Your task to perform on an android device: View the shopping cart on walmart.com. Add "alienware aurora" to the cart on walmart.com Image 0: 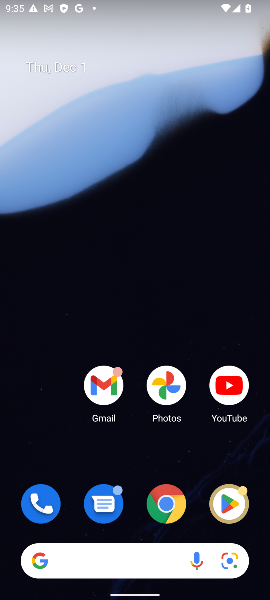
Step 0: click (168, 500)
Your task to perform on an android device: View the shopping cart on walmart.com. Add "alienware aurora" to the cart on walmart.com Image 1: 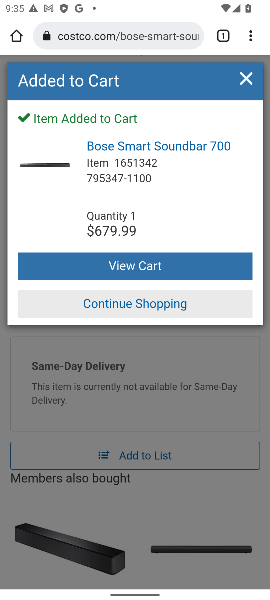
Step 1: click (244, 79)
Your task to perform on an android device: View the shopping cart on walmart.com. Add "alienware aurora" to the cart on walmart.com Image 2: 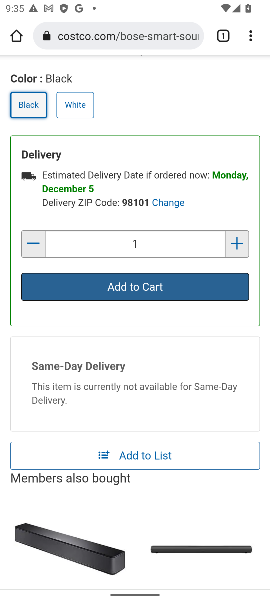
Step 2: click (128, 31)
Your task to perform on an android device: View the shopping cart on walmart.com. Add "alienware aurora" to the cart on walmart.com Image 3: 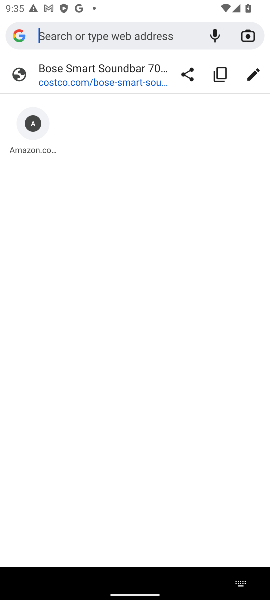
Step 3: type "walmart"
Your task to perform on an android device: View the shopping cart on walmart.com. Add "alienware aurora" to the cart on walmart.com Image 4: 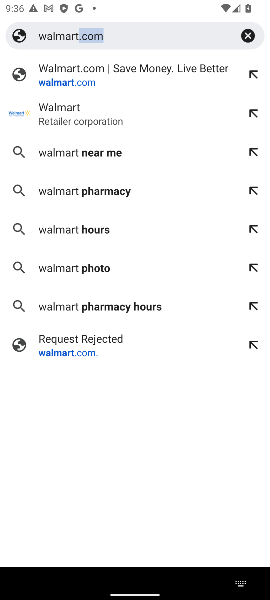
Step 4: click (149, 73)
Your task to perform on an android device: View the shopping cart on walmart.com. Add "alienware aurora" to the cart on walmart.com Image 5: 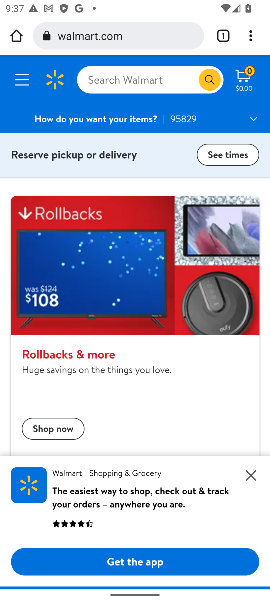
Step 5: click (242, 75)
Your task to perform on an android device: View the shopping cart on walmart.com. Add "alienware aurora" to the cart on walmart.com Image 6: 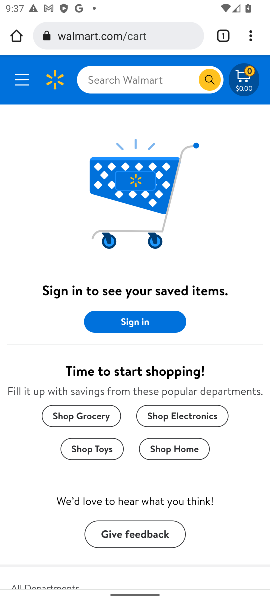
Step 6: click (145, 72)
Your task to perform on an android device: View the shopping cart on walmart.com. Add "alienware aurora" to the cart on walmart.com Image 7: 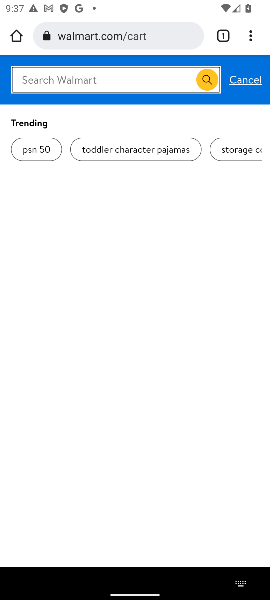
Step 7: type "alienware aurora"
Your task to perform on an android device: View the shopping cart on walmart.com. Add "alienware aurora" to the cart on walmart.com Image 8: 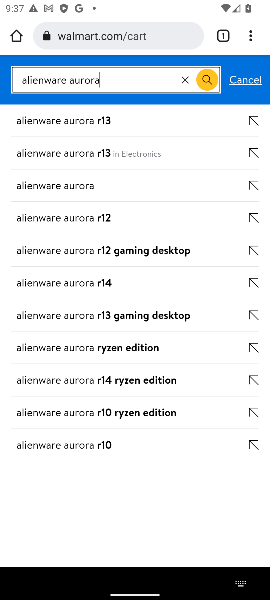
Step 8: click (92, 119)
Your task to perform on an android device: View the shopping cart on walmart.com. Add "alienware aurora" to the cart on walmart.com Image 9: 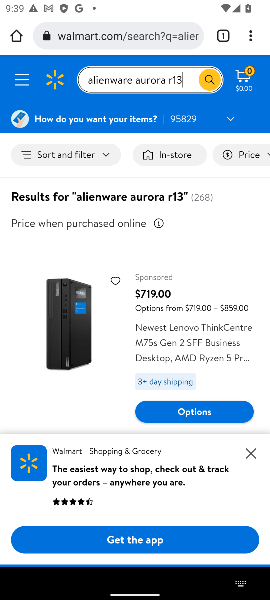
Step 9: click (74, 322)
Your task to perform on an android device: View the shopping cart on walmart.com. Add "alienware aurora" to the cart on walmart.com Image 10: 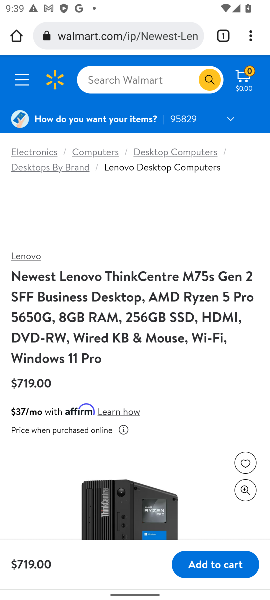
Step 10: click (195, 566)
Your task to perform on an android device: View the shopping cart on walmart.com. Add "alienware aurora" to the cart on walmart.com Image 11: 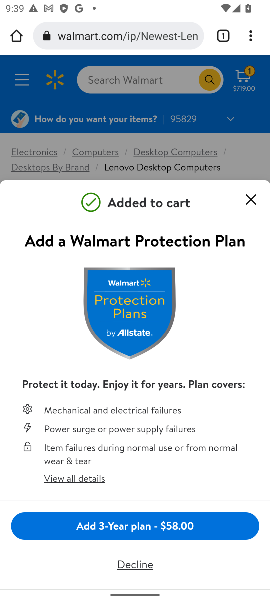
Step 11: click (247, 198)
Your task to perform on an android device: View the shopping cart on walmart.com. Add "alienware aurora" to the cart on walmart.com Image 12: 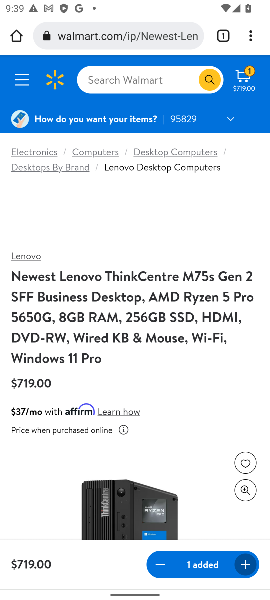
Step 12: task complete